Your task to perform on an android device: Go to display settings Image 0: 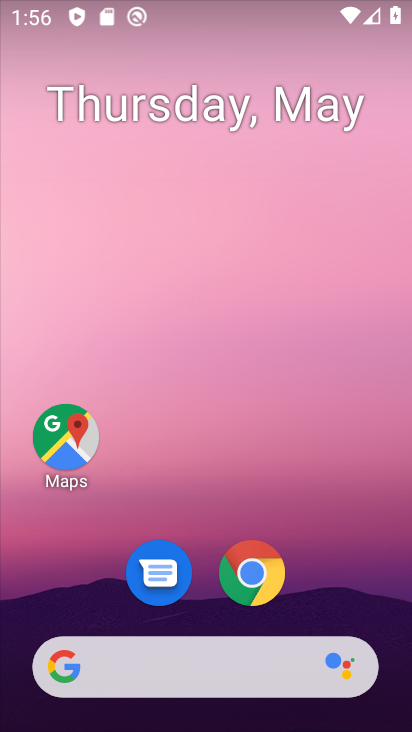
Step 0: drag from (373, 607) to (295, 264)
Your task to perform on an android device: Go to display settings Image 1: 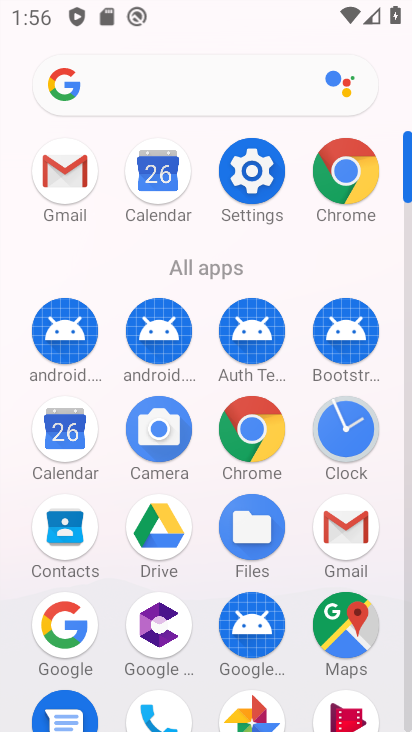
Step 1: click (257, 193)
Your task to perform on an android device: Go to display settings Image 2: 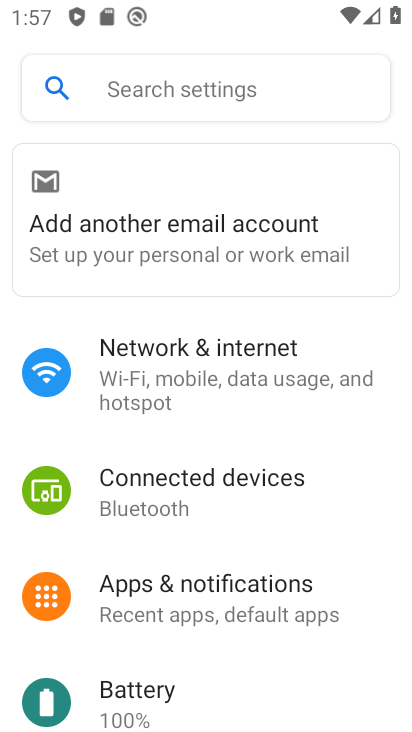
Step 2: drag from (211, 647) to (221, 300)
Your task to perform on an android device: Go to display settings Image 3: 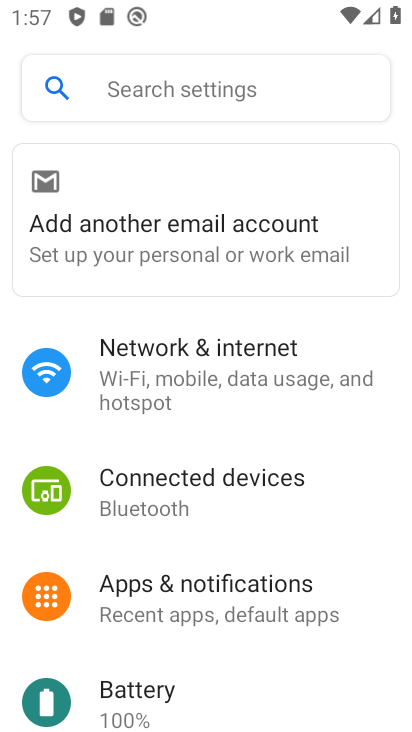
Step 3: drag from (217, 656) to (205, 429)
Your task to perform on an android device: Go to display settings Image 4: 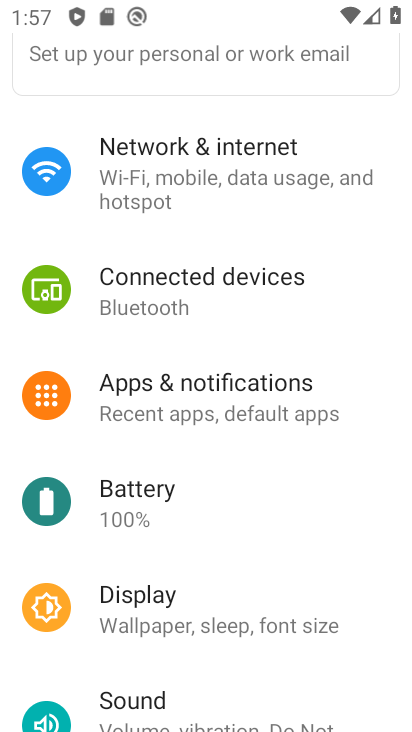
Step 4: click (205, 429)
Your task to perform on an android device: Go to display settings Image 5: 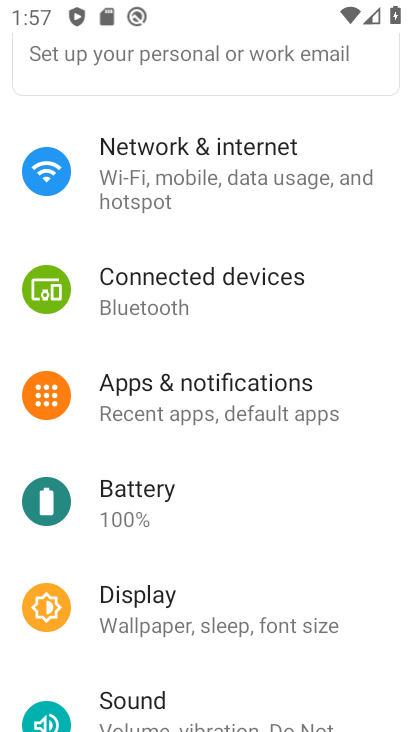
Step 5: click (218, 614)
Your task to perform on an android device: Go to display settings Image 6: 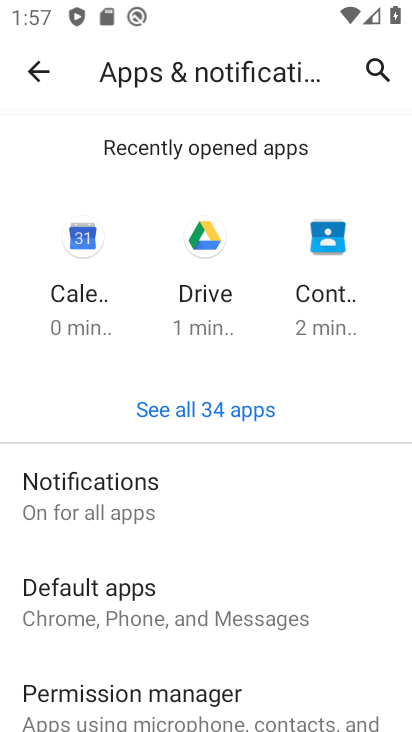
Step 6: task complete